Your task to perform on an android device: Search for 'The Girl on the Train' on Goodreads. Image 0: 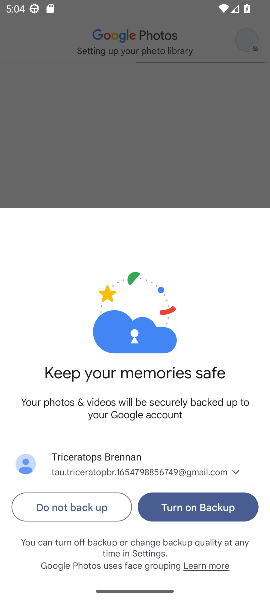
Step 0: press home button
Your task to perform on an android device: Search for 'The Girl on the Train' on Goodreads. Image 1: 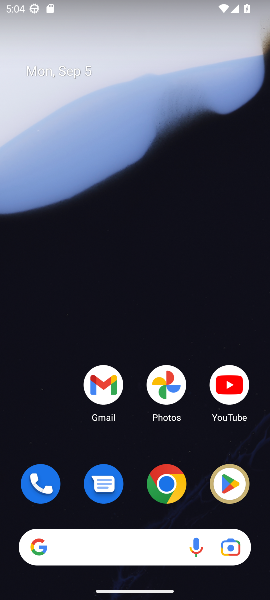
Step 1: click (170, 486)
Your task to perform on an android device: Search for 'The Girl on the Train' on Goodreads. Image 2: 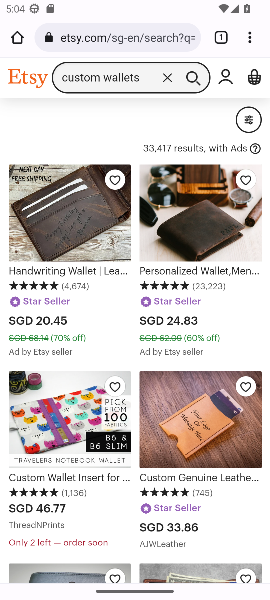
Step 2: click (137, 35)
Your task to perform on an android device: Search for 'The Girl on the Train' on Goodreads. Image 3: 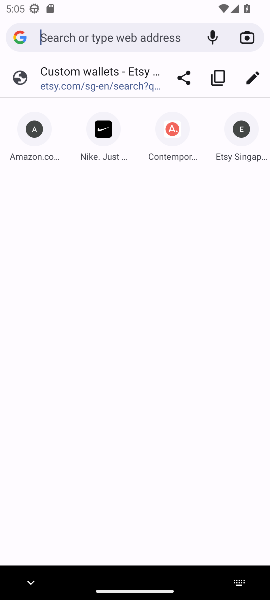
Step 3: type "Goodreads"
Your task to perform on an android device: Search for 'The Girl on the Train' on Goodreads. Image 4: 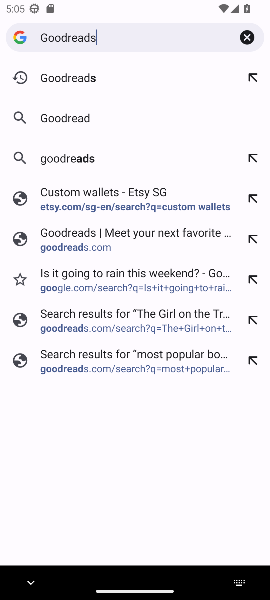
Step 4: press enter
Your task to perform on an android device: Search for 'The Girl on the Train' on Goodreads. Image 5: 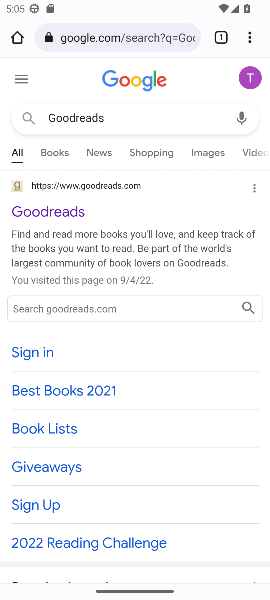
Step 5: click (61, 212)
Your task to perform on an android device: Search for 'The Girl on the Train' on Goodreads. Image 6: 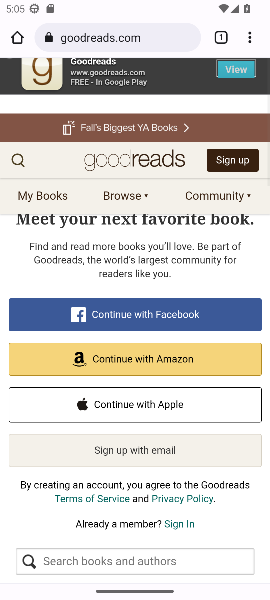
Step 6: click (19, 161)
Your task to perform on an android device: Search for 'The Girl on the Train' on Goodreads. Image 7: 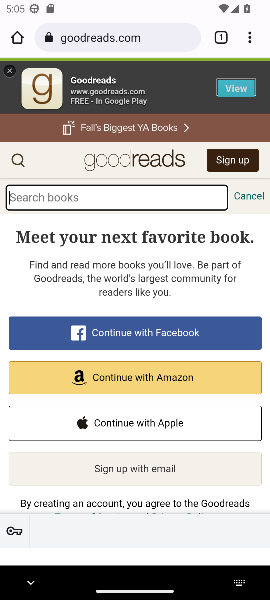
Step 7: type "The Girl on the Train"
Your task to perform on an android device: Search for 'The Girl on the Train' on Goodreads. Image 8: 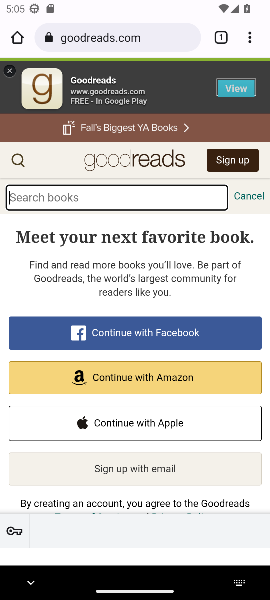
Step 8: press enter
Your task to perform on an android device: Search for 'The Girl on the Train' on Goodreads. Image 9: 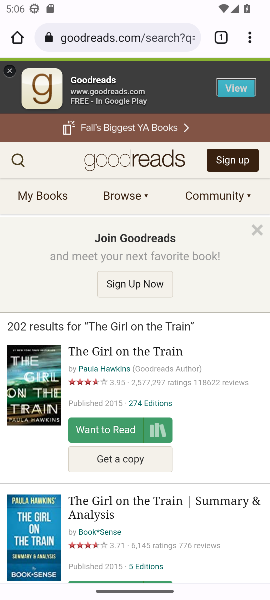
Step 9: task complete